Your task to perform on an android device: Open wifi settings Image 0: 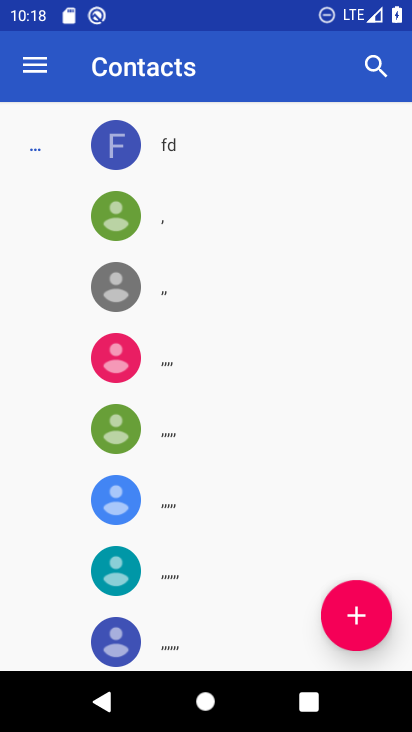
Step 0: press home button
Your task to perform on an android device: Open wifi settings Image 1: 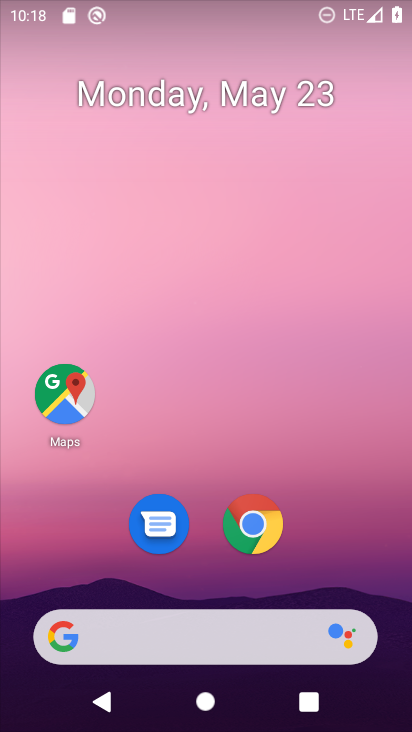
Step 1: drag from (205, 455) to (235, 36)
Your task to perform on an android device: Open wifi settings Image 2: 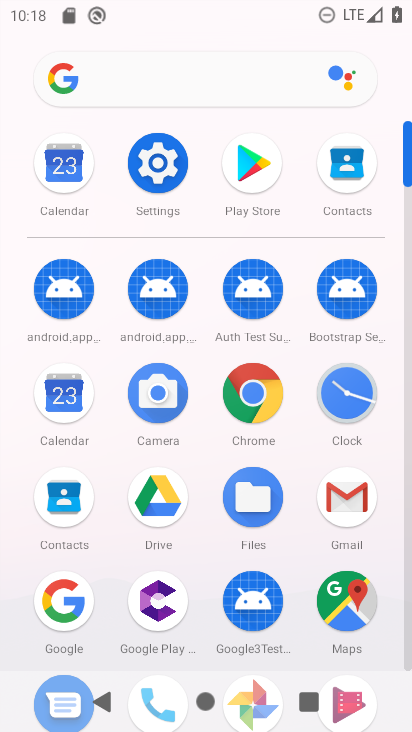
Step 2: click (161, 165)
Your task to perform on an android device: Open wifi settings Image 3: 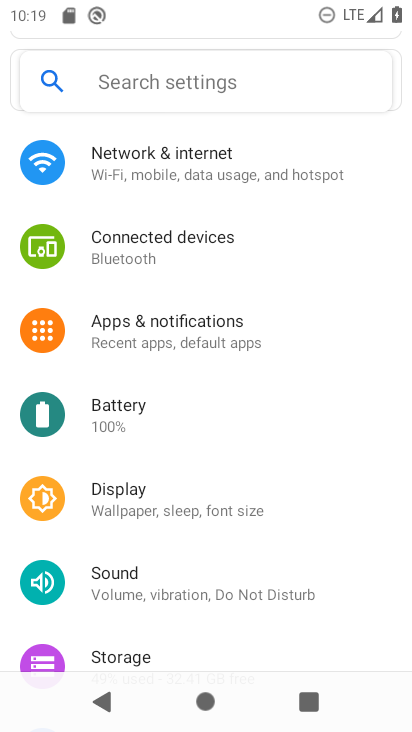
Step 3: click (214, 160)
Your task to perform on an android device: Open wifi settings Image 4: 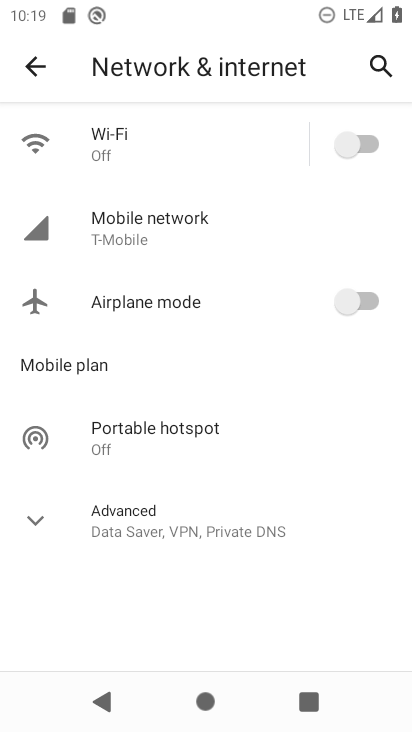
Step 4: task complete